Your task to perform on an android device: Show me popular games on the Play Store Image 0: 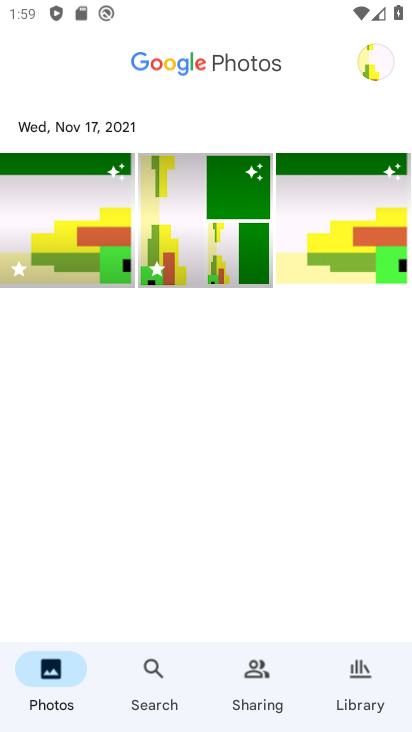
Step 0: press back button
Your task to perform on an android device: Show me popular games on the Play Store Image 1: 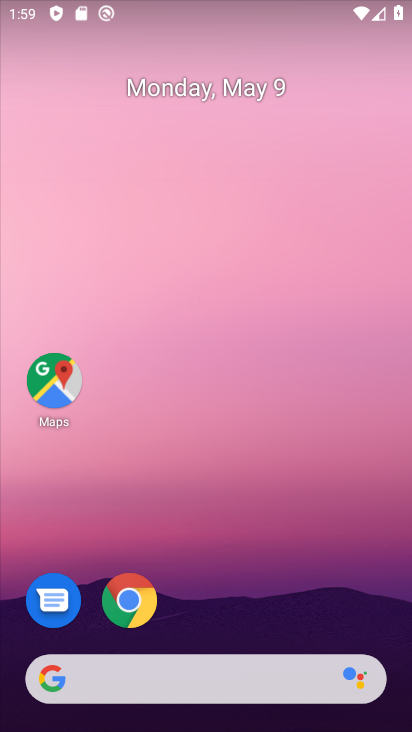
Step 1: drag from (304, 549) to (281, 0)
Your task to perform on an android device: Show me popular games on the Play Store Image 2: 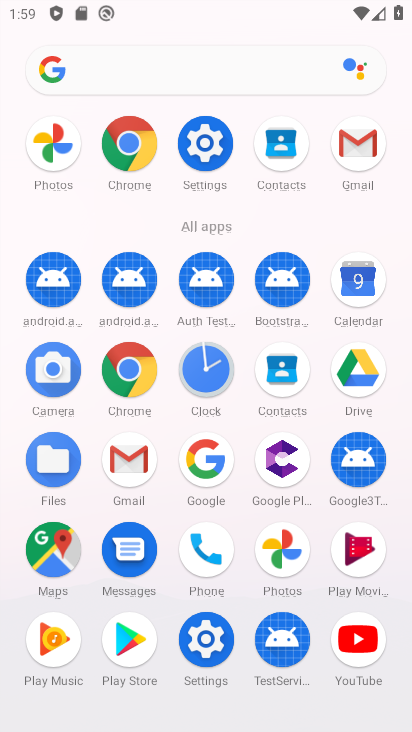
Step 2: drag from (7, 575) to (3, 312)
Your task to perform on an android device: Show me popular games on the Play Store Image 3: 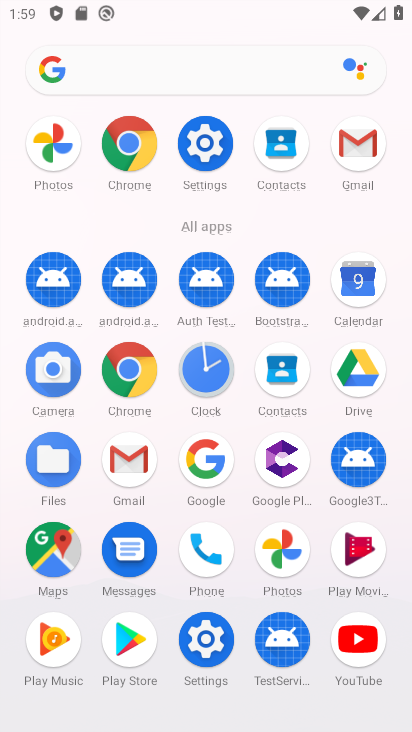
Step 3: click (116, 641)
Your task to perform on an android device: Show me popular games on the Play Store Image 4: 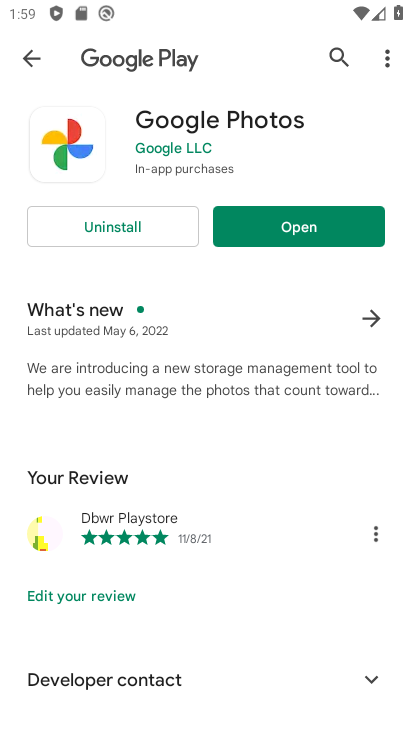
Step 4: click (26, 43)
Your task to perform on an android device: Show me popular games on the Play Store Image 5: 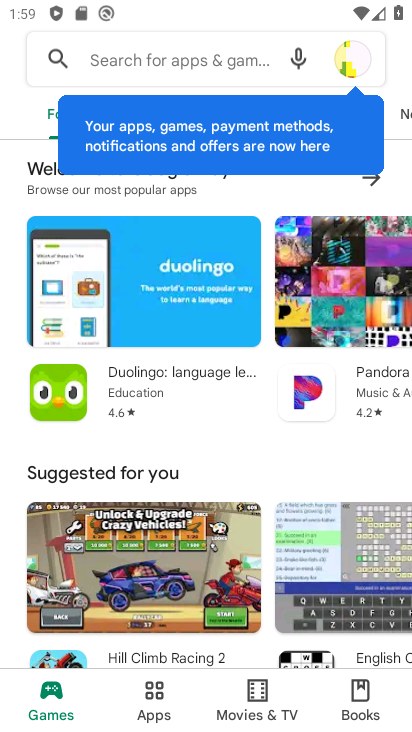
Step 5: click (392, 131)
Your task to perform on an android device: Show me popular games on the Play Store Image 6: 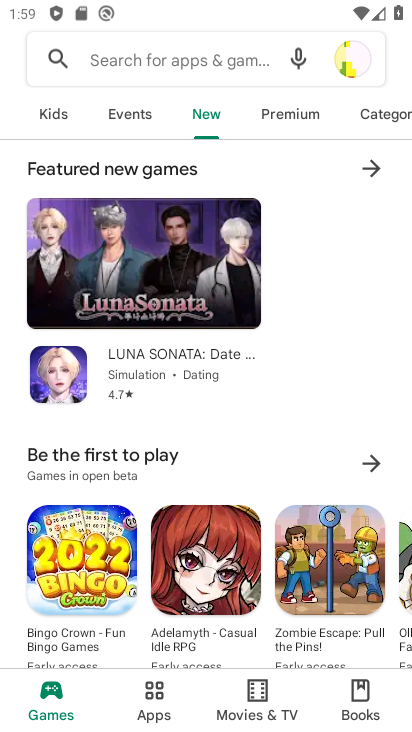
Step 6: click (363, 112)
Your task to perform on an android device: Show me popular games on the Play Store Image 7: 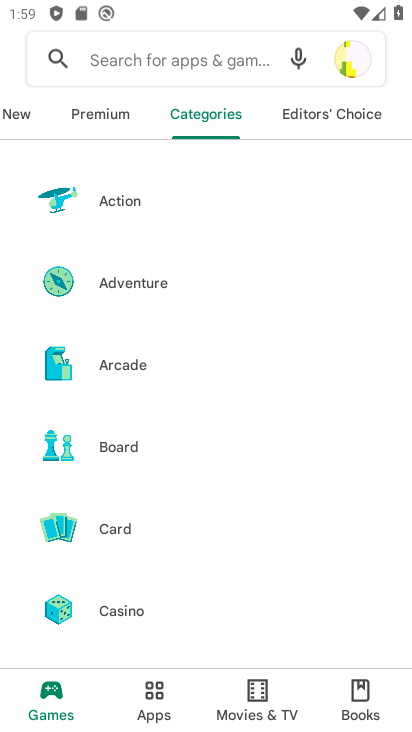
Step 7: drag from (240, 613) to (238, 138)
Your task to perform on an android device: Show me popular games on the Play Store Image 8: 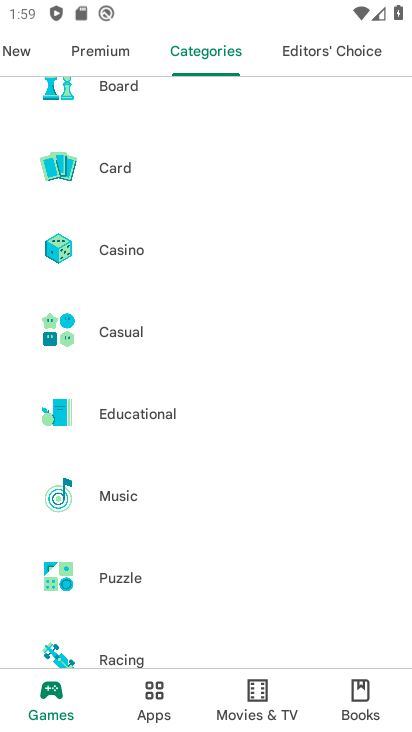
Step 8: drag from (276, 569) to (290, 147)
Your task to perform on an android device: Show me popular games on the Play Store Image 9: 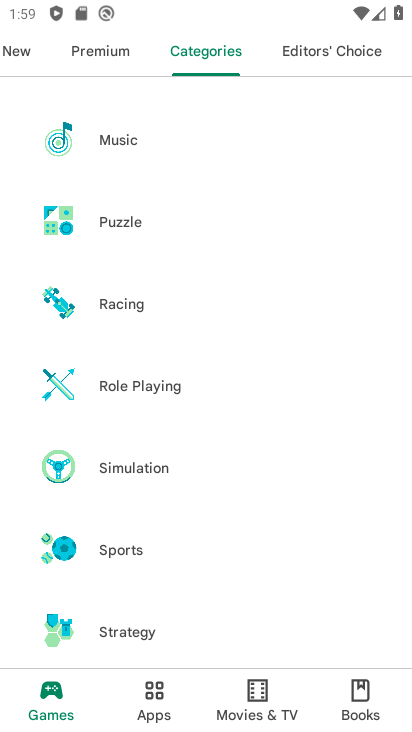
Step 9: drag from (208, 508) to (216, 151)
Your task to perform on an android device: Show me popular games on the Play Store Image 10: 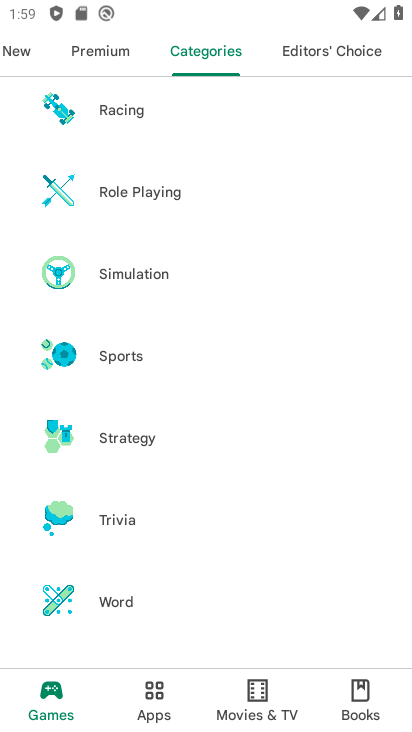
Step 10: drag from (275, 549) to (262, 106)
Your task to perform on an android device: Show me popular games on the Play Store Image 11: 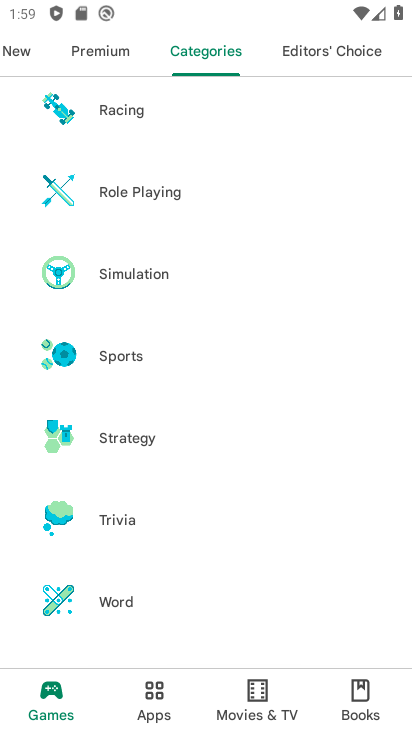
Step 11: drag from (260, 241) to (275, 622)
Your task to perform on an android device: Show me popular games on the Play Store Image 12: 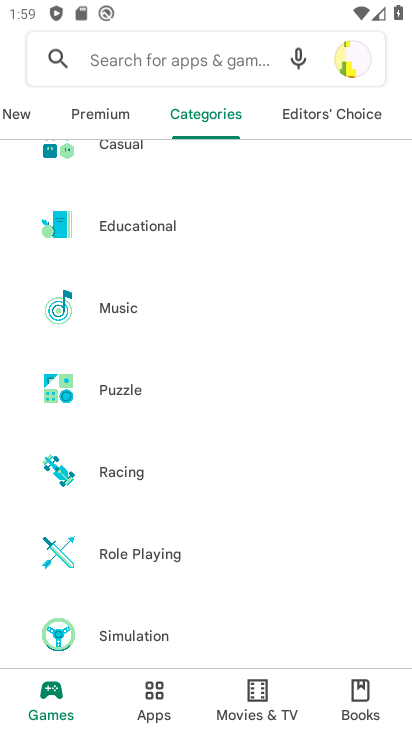
Step 12: drag from (258, 265) to (253, 607)
Your task to perform on an android device: Show me popular games on the Play Store Image 13: 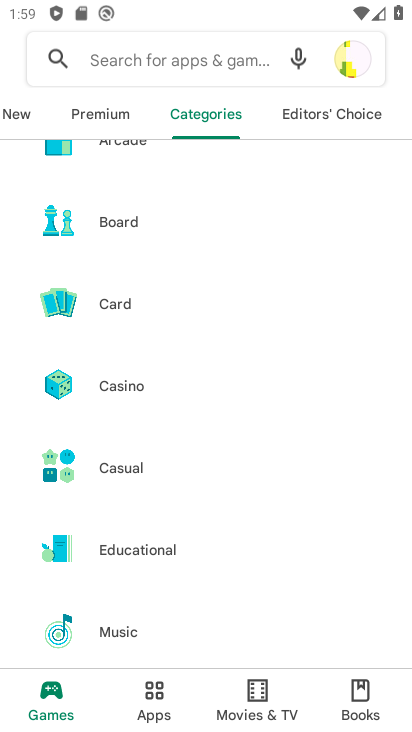
Step 13: drag from (259, 325) to (259, 583)
Your task to perform on an android device: Show me popular games on the Play Store Image 14: 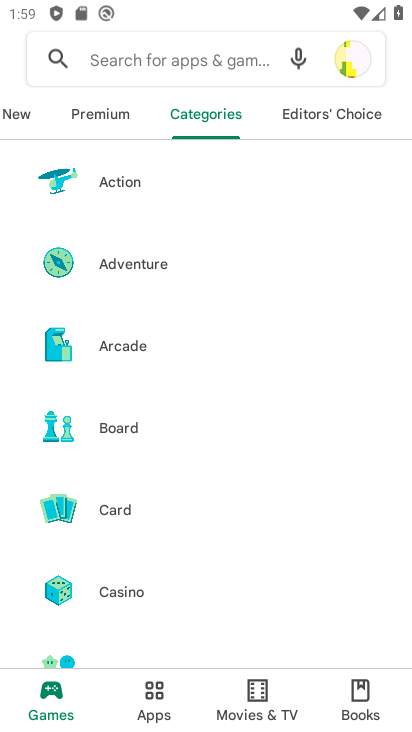
Step 14: drag from (248, 290) to (238, 596)
Your task to perform on an android device: Show me popular games on the Play Store Image 15: 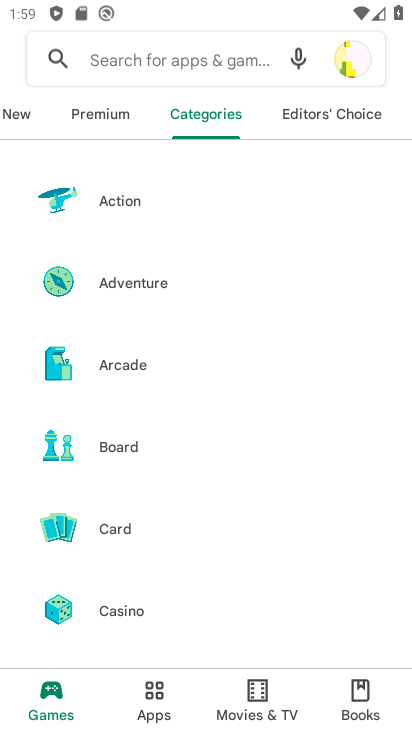
Step 15: click (14, 112)
Your task to perform on an android device: Show me popular games on the Play Store Image 16: 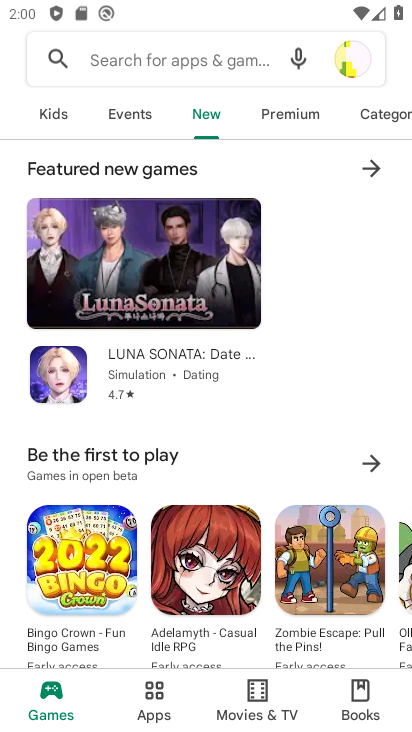
Step 16: task complete